Your task to perform on an android device: manage bookmarks in the chrome app Image 0: 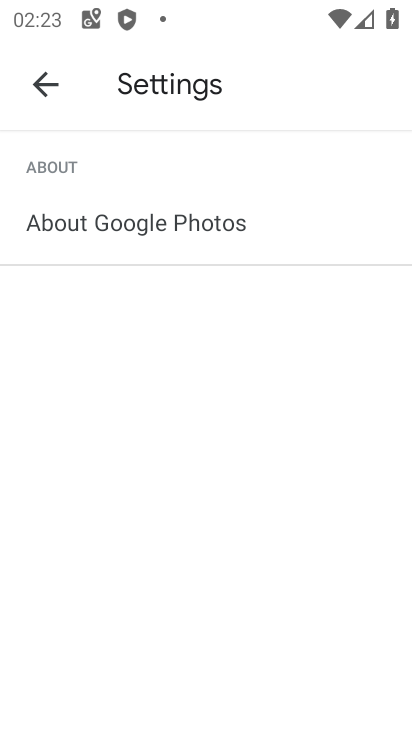
Step 0: press home button
Your task to perform on an android device: manage bookmarks in the chrome app Image 1: 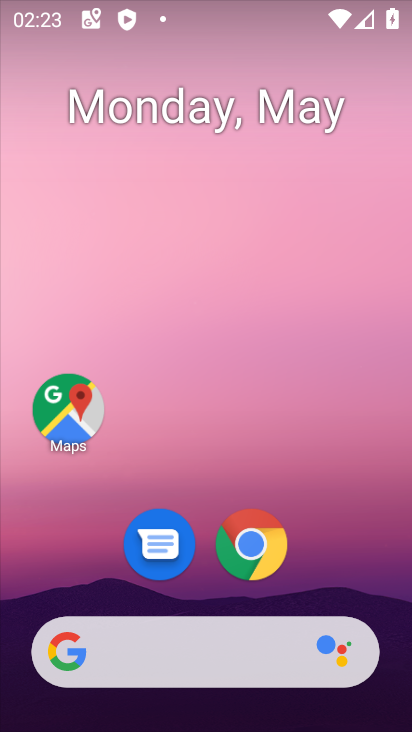
Step 1: drag from (382, 573) to (364, 158)
Your task to perform on an android device: manage bookmarks in the chrome app Image 2: 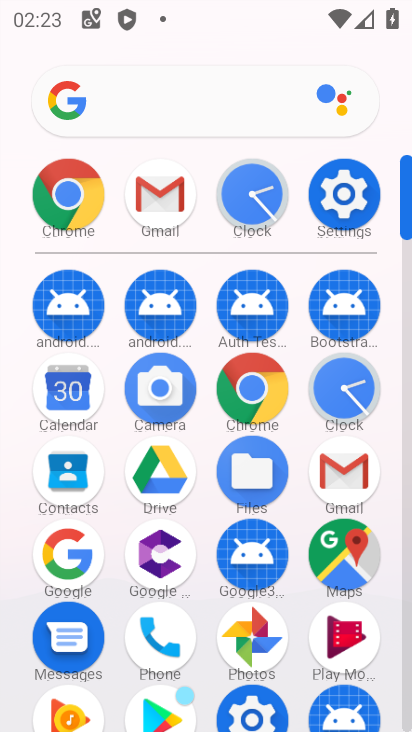
Step 2: click (267, 377)
Your task to perform on an android device: manage bookmarks in the chrome app Image 3: 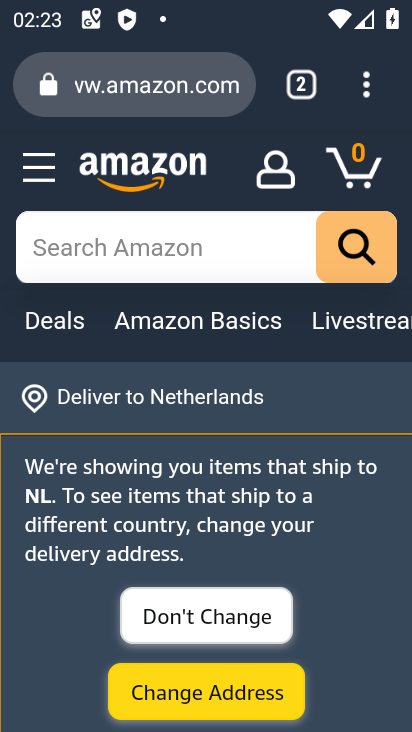
Step 3: click (368, 102)
Your task to perform on an android device: manage bookmarks in the chrome app Image 4: 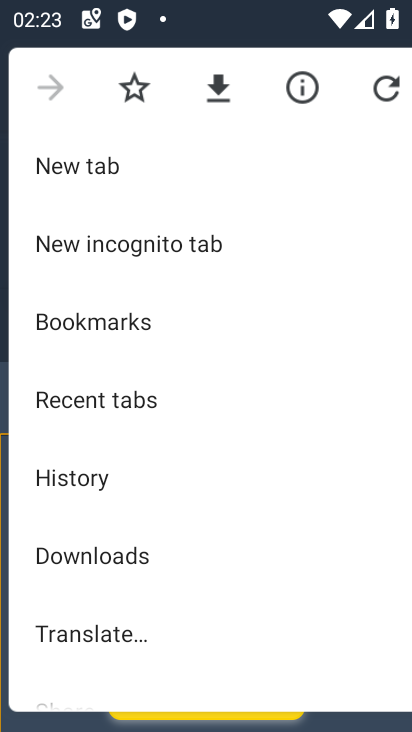
Step 4: click (159, 325)
Your task to perform on an android device: manage bookmarks in the chrome app Image 5: 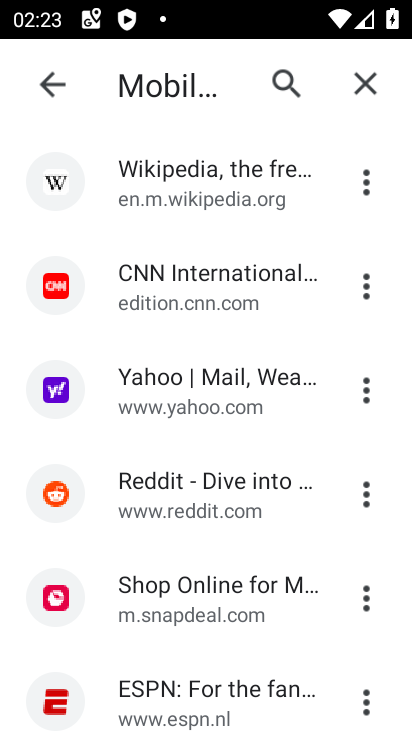
Step 5: click (365, 194)
Your task to perform on an android device: manage bookmarks in the chrome app Image 6: 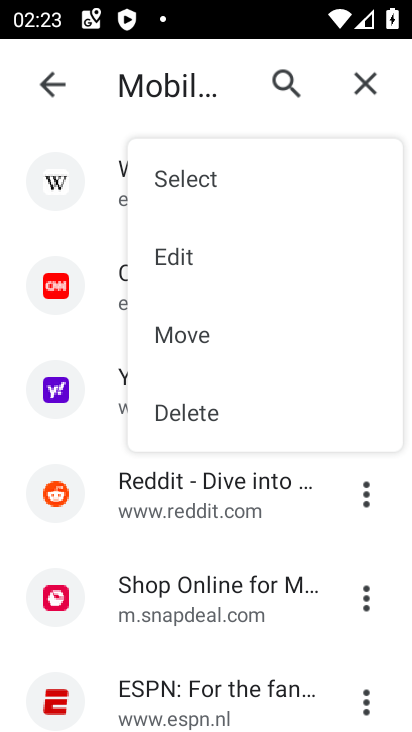
Step 6: click (186, 262)
Your task to perform on an android device: manage bookmarks in the chrome app Image 7: 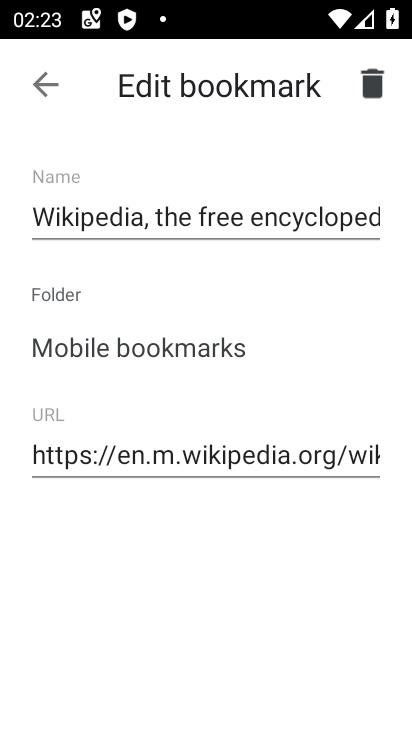
Step 7: click (194, 217)
Your task to perform on an android device: manage bookmarks in the chrome app Image 8: 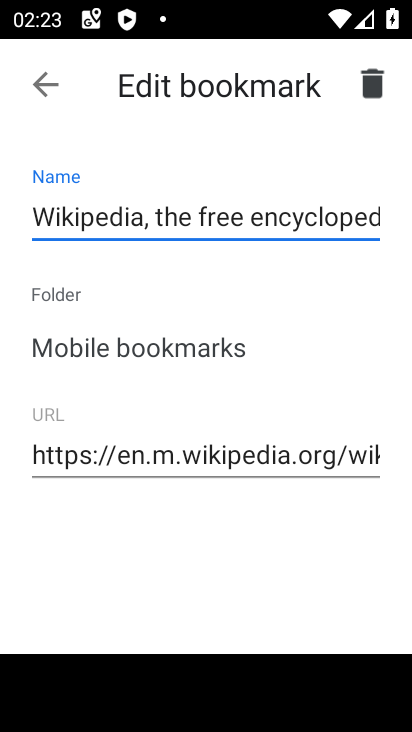
Step 8: type "e"
Your task to perform on an android device: manage bookmarks in the chrome app Image 9: 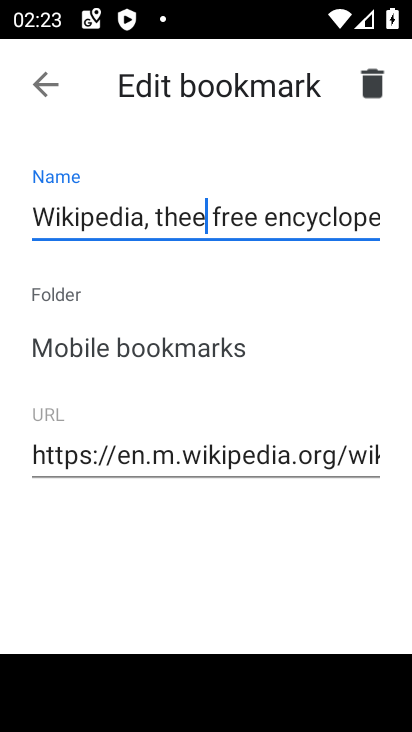
Step 9: click (36, 78)
Your task to perform on an android device: manage bookmarks in the chrome app Image 10: 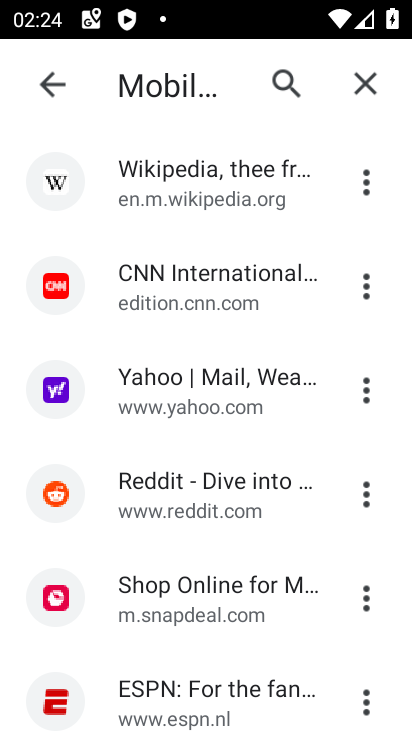
Step 10: task complete